Your task to perform on an android device: Search for the new Apple Watch on Best Buy Image 0: 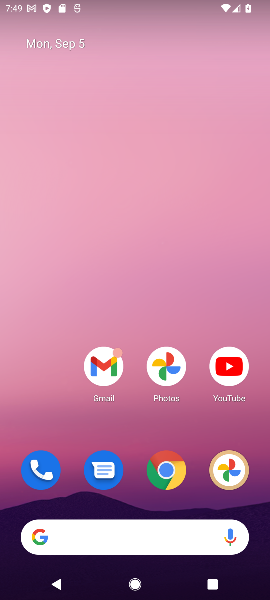
Step 0: drag from (155, 500) to (107, 44)
Your task to perform on an android device: Search for the new Apple Watch on Best Buy Image 1: 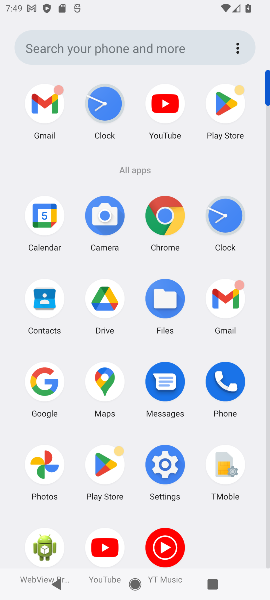
Step 1: click (170, 221)
Your task to perform on an android device: Search for the new Apple Watch on Best Buy Image 2: 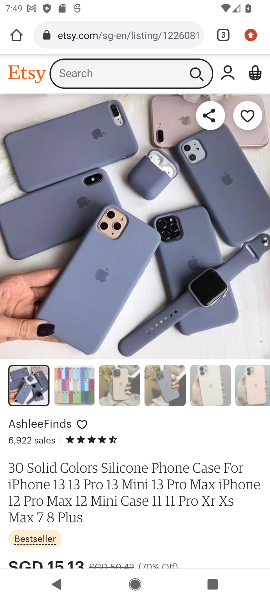
Step 2: click (222, 42)
Your task to perform on an android device: Search for the new Apple Watch on Best Buy Image 3: 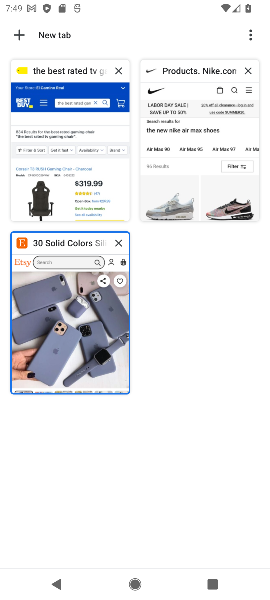
Step 3: click (22, 30)
Your task to perform on an android device: Search for the new Apple Watch on Best Buy Image 4: 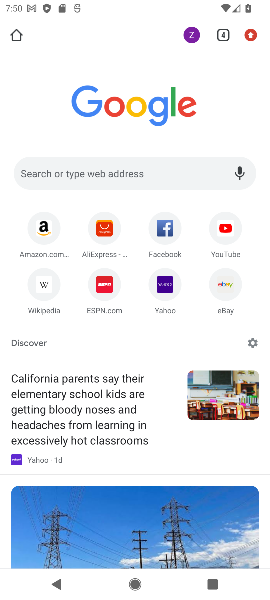
Step 4: click (87, 173)
Your task to perform on an android device: Search for the new Apple Watch on Best Buy Image 5: 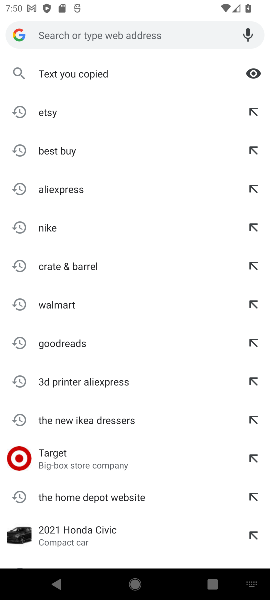
Step 5: type "Best Buy"
Your task to perform on an android device: Search for the new Apple Watch on Best Buy Image 6: 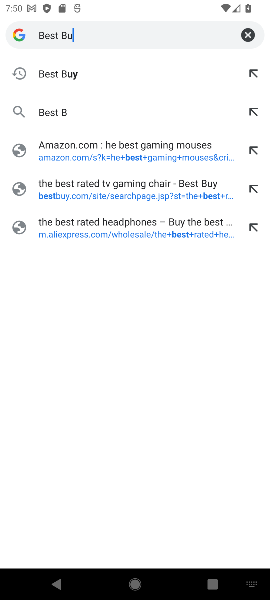
Step 6: type ""
Your task to perform on an android device: Search for the new Apple Watch on Best Buy Image 7: 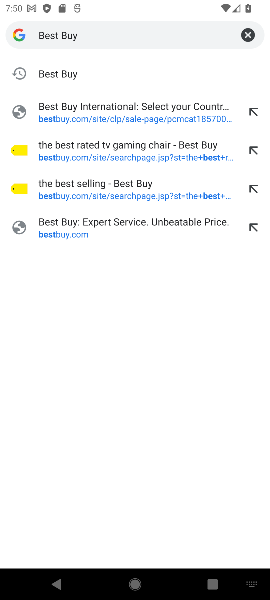
Step 7: click (37, 72)
Your task to perform on an android device: Search for the new Apple Watch on Best Buy Image 8: 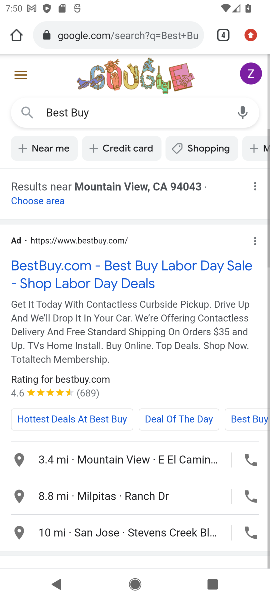
Step 8: click (70, 266)
Your task to perform on an android device: Search for the new Apple Watch on Best Buy Image 9: 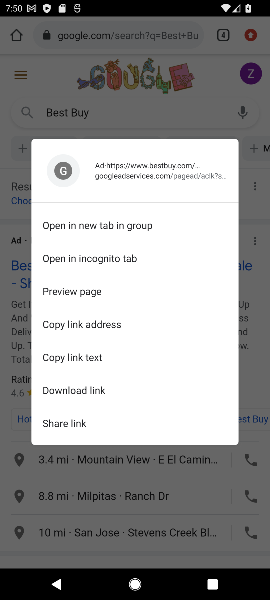
Step 9: click (254, 246)
Your task to perform on an android device: Search for the new Apple Watch on Best Buy Image 10: 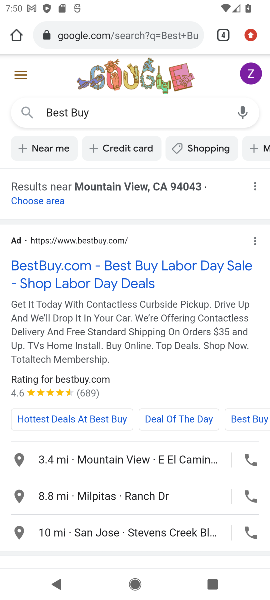
Step 10: click (180, 265)
Your task to perform on an android device: Search for the new Apple Watch on Best Buy Image 11: 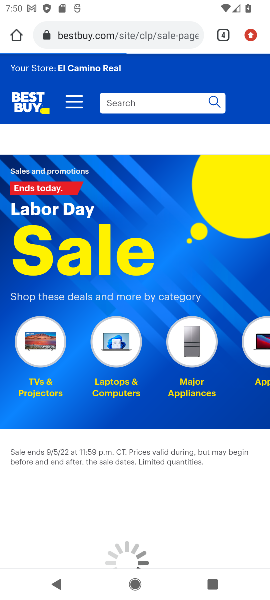
Step 11: click (138, 114)
Your task to perform on an android device: Search for the new Apple Watch on Best Buy Image 12: 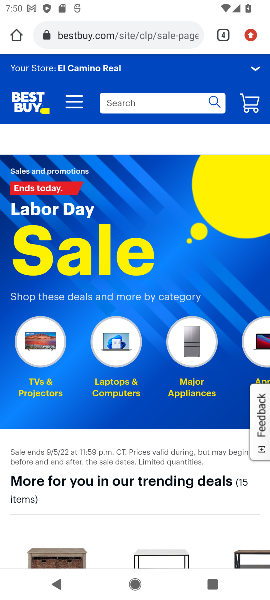
Step 12: type "the new Apple Watch"
Your task to perform on an android device: Search for the new Apple Watch on Best Buy Image 13: 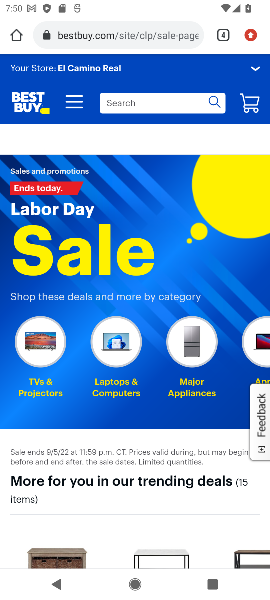
Step 13: click (126, 106)
Your task to perform on an android device: Search for the new Apple Watch on Best Buy Image 14: 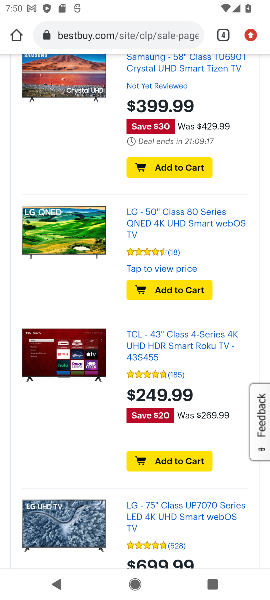
Step 14: drag from (136, 105) to (136, 554)
Your task to perform on an android device: Search for the new Apple Watch on Best Buy Image 15: 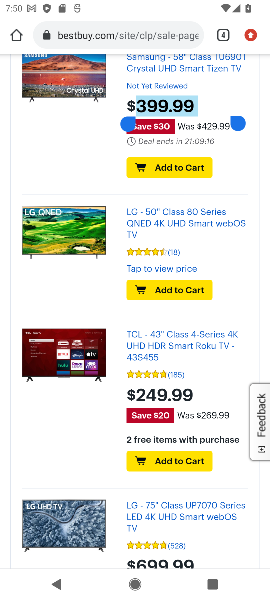
Step 15: drag from (161, 133) to (65, 590)
Your task to perform on an android device: Search for the new Apple Watch on Best Buy Image 16: 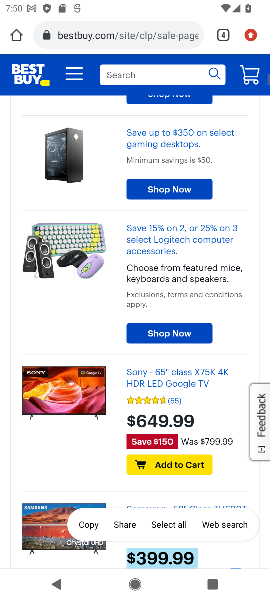
Step 16: drag from (110, 142) to (71, 557)
Your task to perform on an android device: Search for the new Apple Watch on Best Buy Image 17: 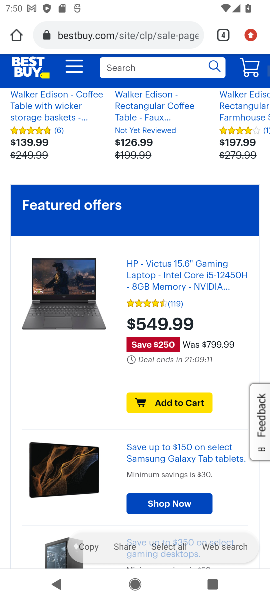
Step 17: click (149, 76)
Your task to perform on an android device: Search for the new Apple Watch on Best Buy Image 18: 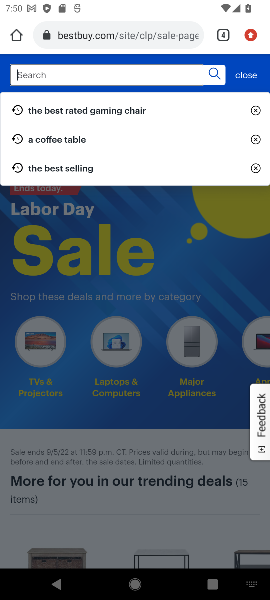
Step 18: type "the new Apple Watch"
Your task to perform on an android device: Search for the new Apple Watch on Best Buy Image 19: 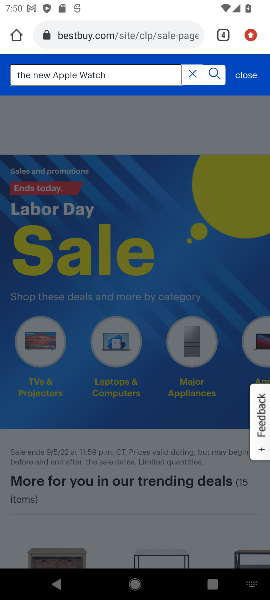
Step 19: click (215, 71)
Your task to perform on an android device: Search for the new Apple Watch on Best Buy Image 20: 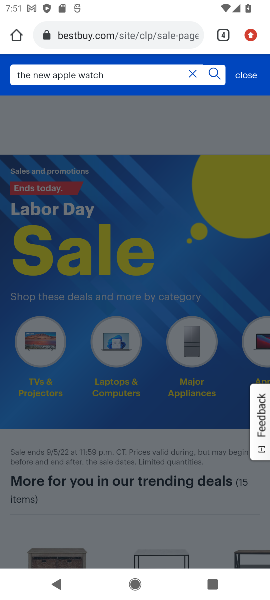
Step 20: click (216, 75)
Your task to perform on an android device: Search for the new Apple Watch on Best Buy Image 21: 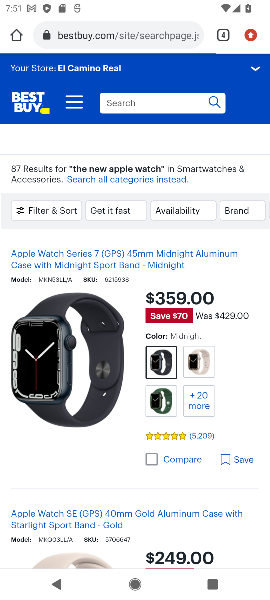
Step 21: task complete